Your task to perform on an android device: Go to settings Image 0: 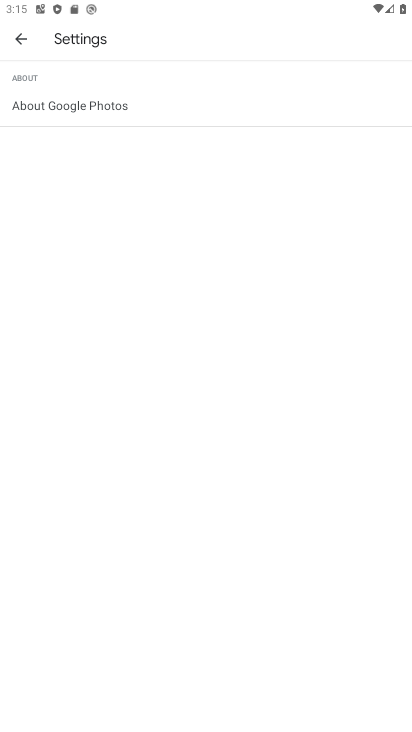
Step 0: press home button
Your task to perform on an android device: Go to settings Image 1: 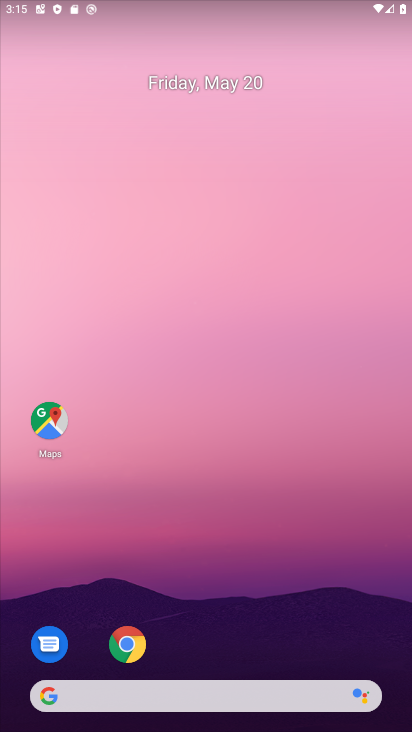
Step 1: drag from (309, 600) to (145, 82)
Your task to perform on an android device: Go to settings Image 2: 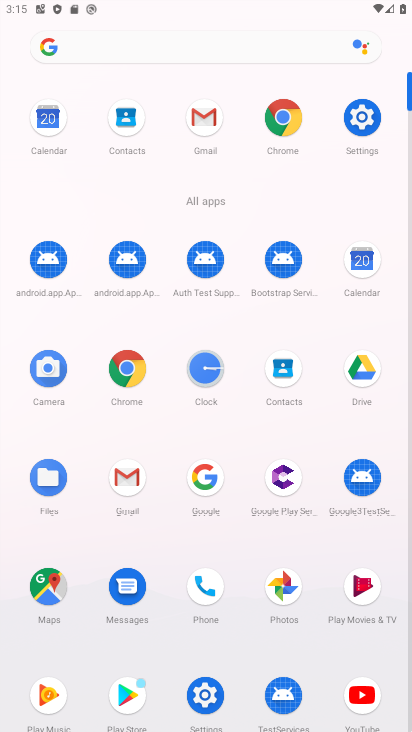
Step 2: click (359, 137)
Your task to perform on an android device: Go to settings Image 3: 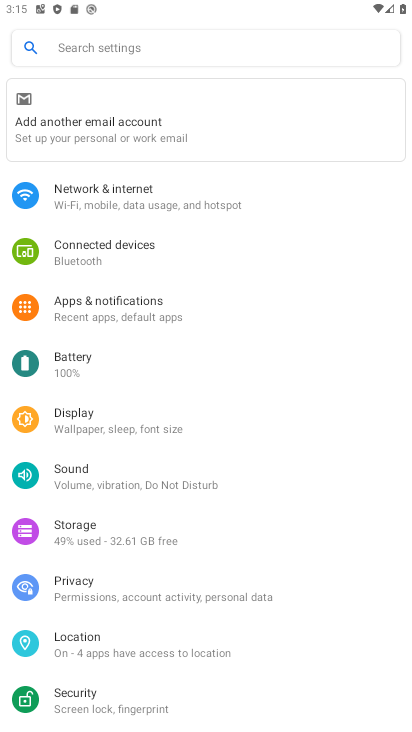
Step 3: task complete